Your task to perform on an android device: toggle location history Image 0: 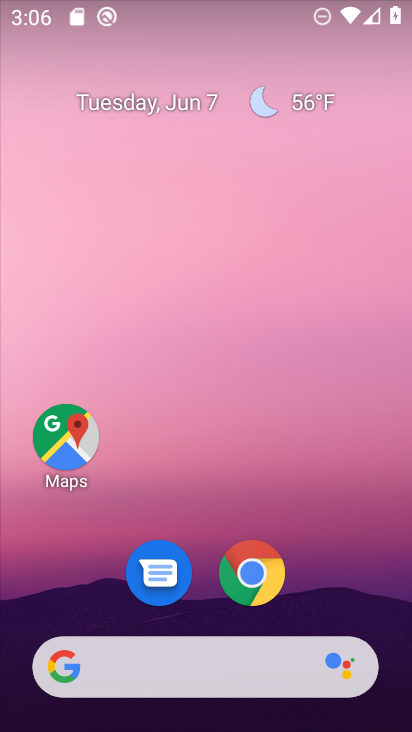
Step 0: drag from (362, 571) to (342, 5)
Your task to perform on an android device: toggle location history Image 1: 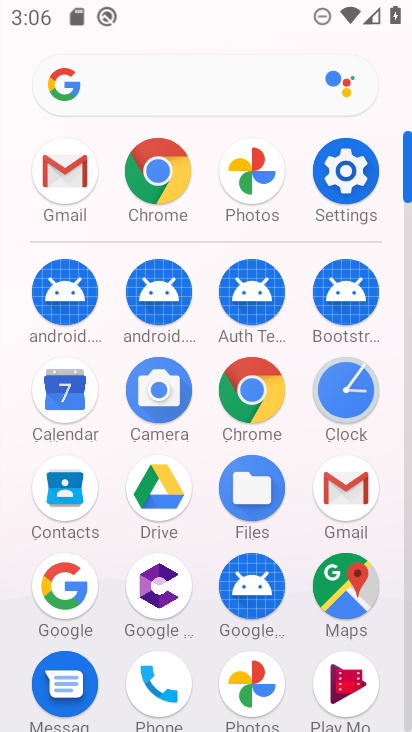
Step 1: click (337, 180)
Your task to perform on an android device: toggle location history Image 2: 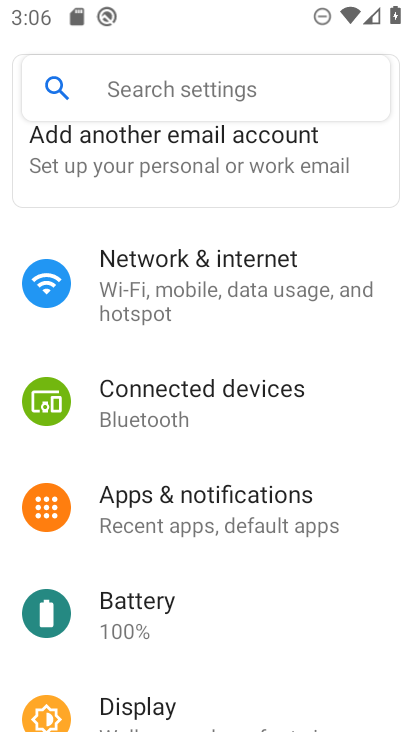
Step 2: drag from (263, 602) to (304, 49)
Your task to perform on an android device: toggle location history Image 3: 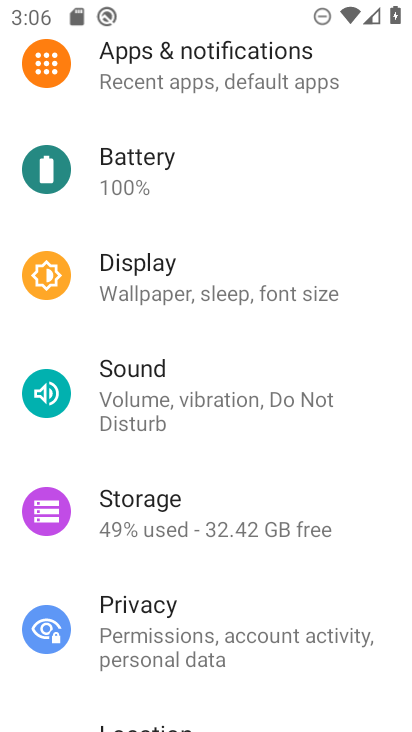
Step 3: drag from (204, 620) to (274, 148)
Your task to perform on an android device: toggle location history Image 4: 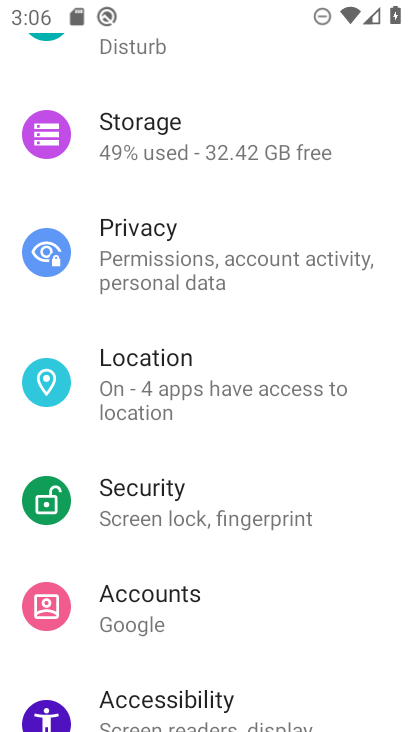
Step 4: click (206, 404)
Your task to perform on an android device: toggle location history Image 5: 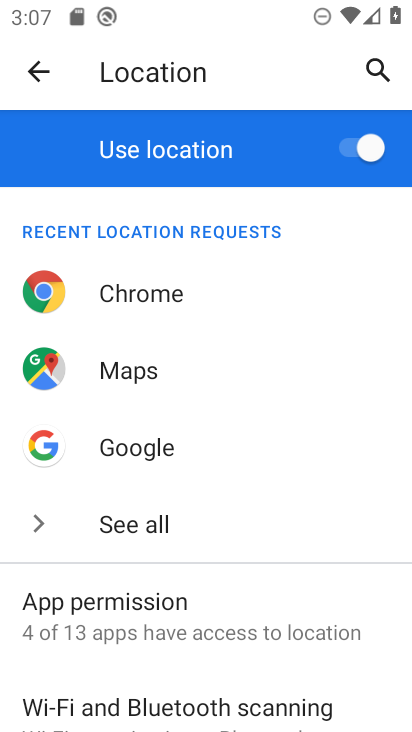
Step 5: drag from (216, 675) to (231, 151)
Your task to perform on an android device: toggle location history Image 6: 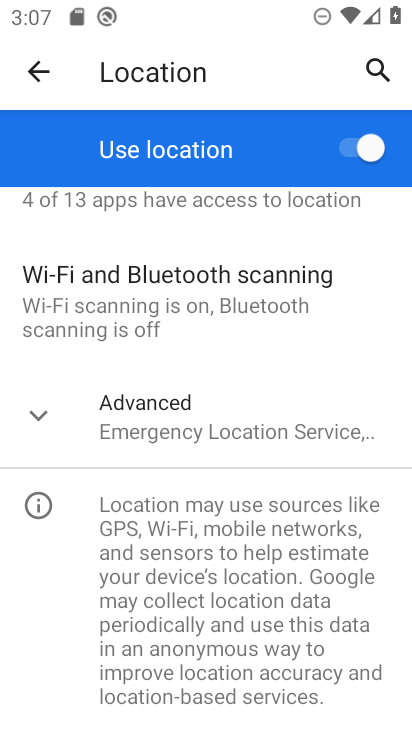
Step 6: click (217, 422)
Your task to perform on an android device: toggle location history Image 7: 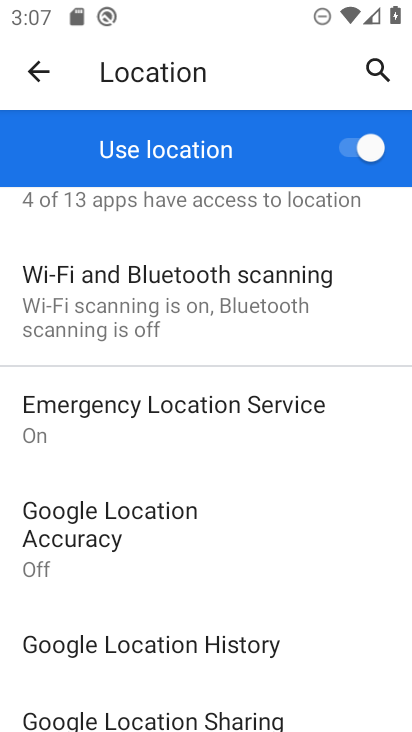
Step 7: drag from (192, 708) to (190, 503)
Your task to perform on an android device: toggle location history Image 8: 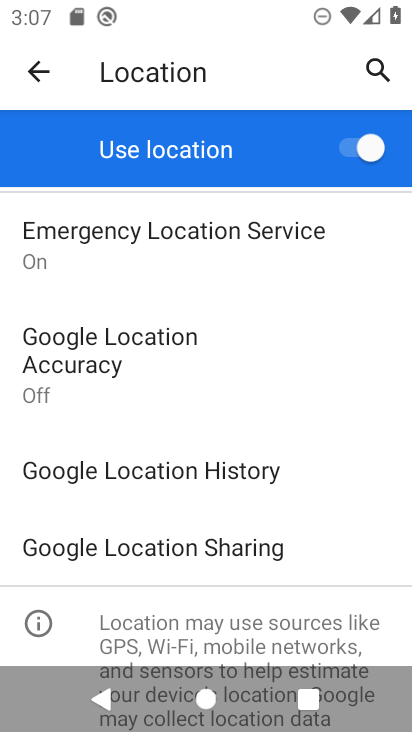
Step 8: click (164, 477)
Your task to perform on an android device: toggle location history Image 9: 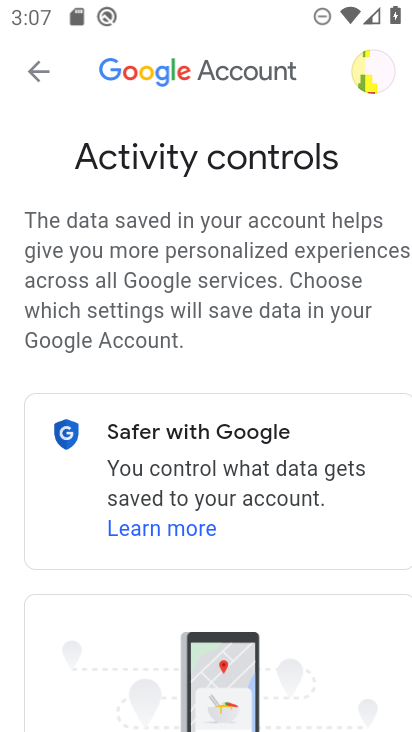
Step 9: drag from (228, 645) to (252, 59)
Your task to perform on an android device: toggle location history Image 10: 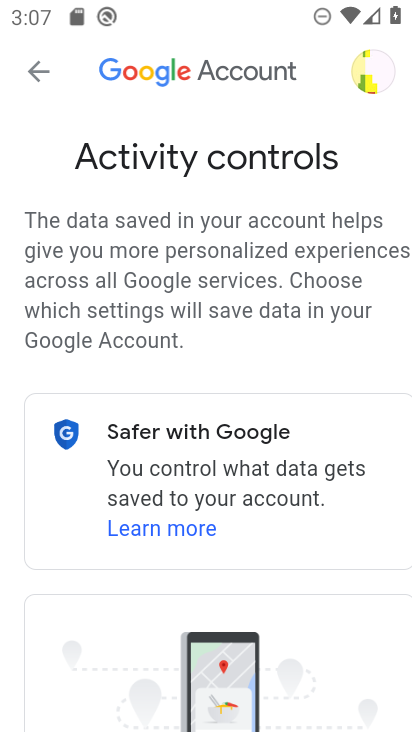
Step 10: drag from (261, 655) to (206, 47)
Your task to perform on an android device: toggle location history Image 11: 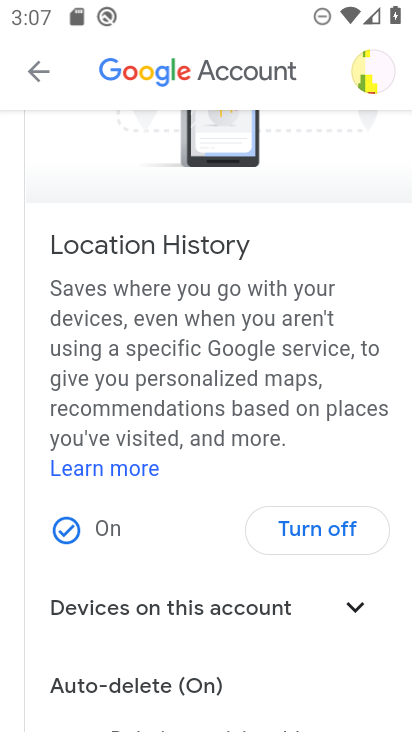
Step 11: click (314, 537)
Your task to perform on an android device: toggle location history Image 12: 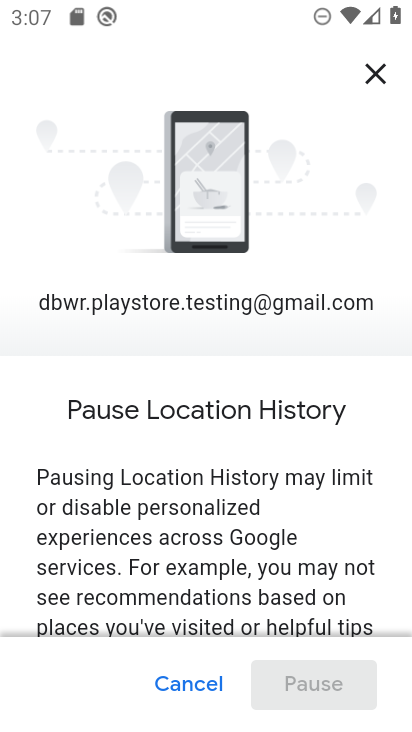
Step 12: drag from (297, 536) to (320, 8)
Your task to perform on an android device: toggle location history Image 13: 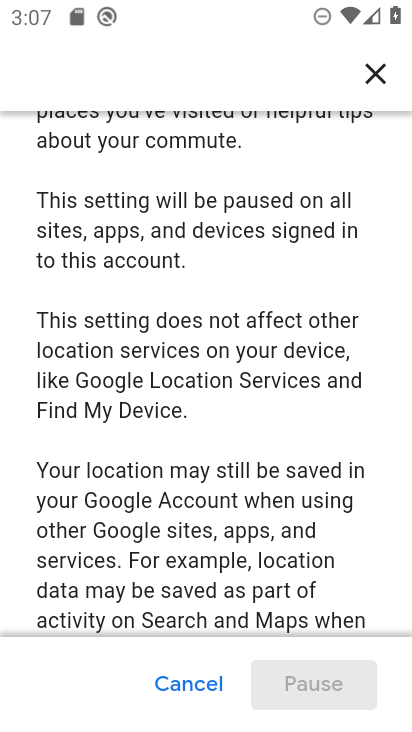
Step 13: drag from (293, 587) to (270, 76)
Your task to perform on an android device: toggle location history Image 14: 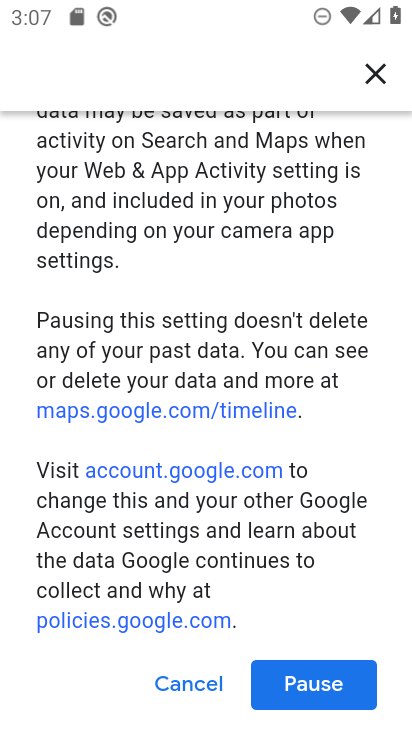
Step 14: click (310, 700)
Your task to perform on an android device: toggle location history Image 15: 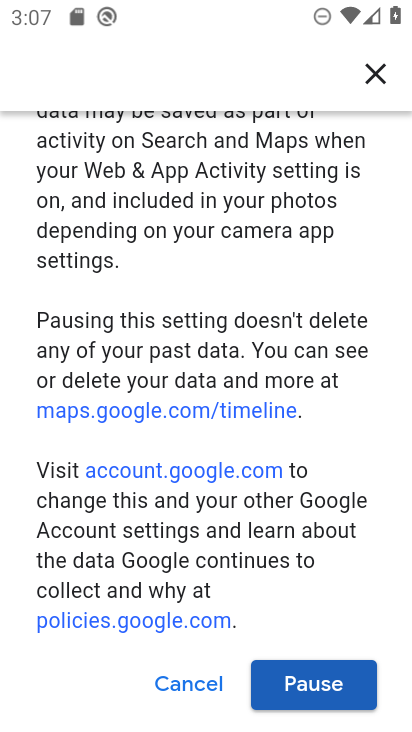
Step 15: click (327, 700)
Your task to perform on an android device: toggle location history Image 16: 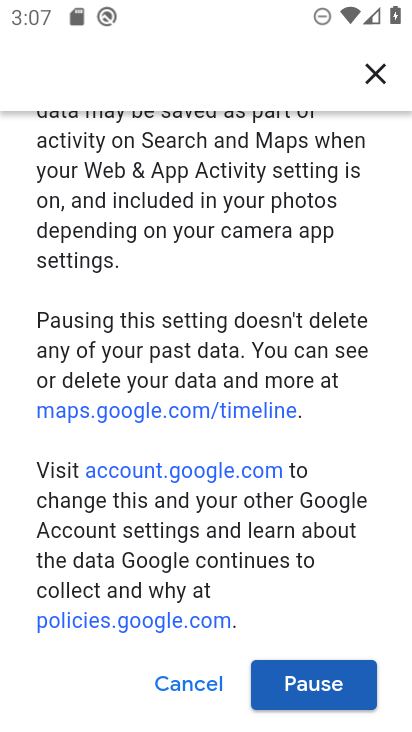
Step 16: click (327, 700)
Your task to perform on an android device: toggle location history Image 17: 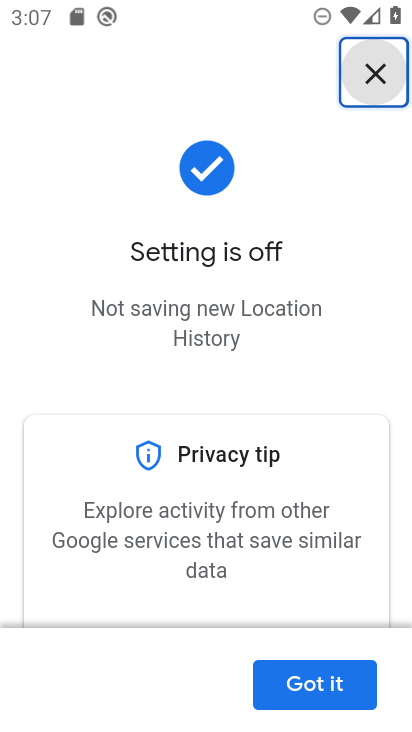
Step 17: task complete